Your task to perform on an android device: See recent photos Image 0: 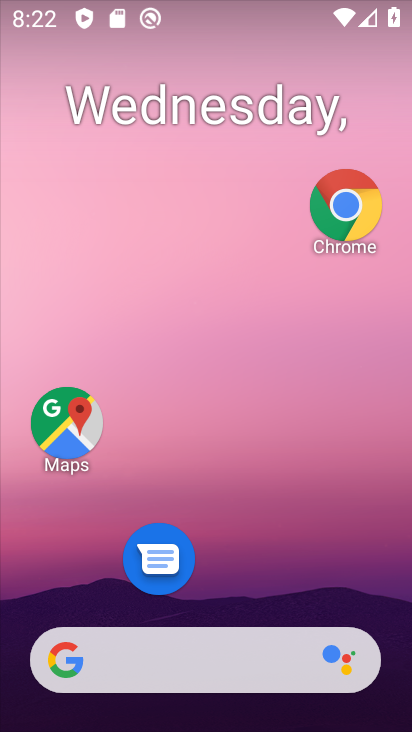
Step 0: drag from (208, 519) to (208, 298)
Your task to perform on an android device: See recent photos Image 1: 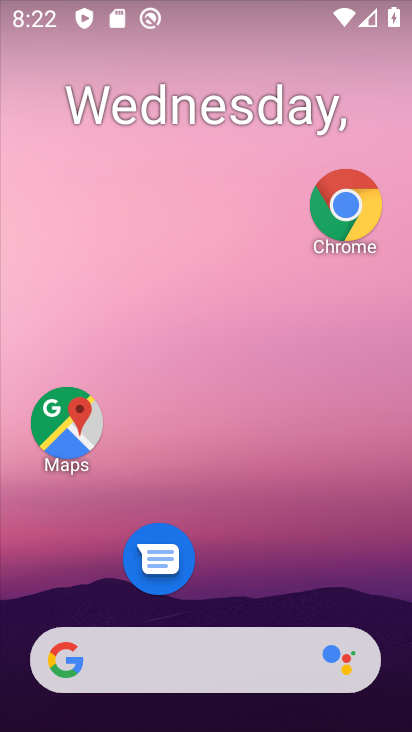
Step 1: drag from (233, 578) to (253, 29)
Your task to perform on an android device: See recent photos Image 2: 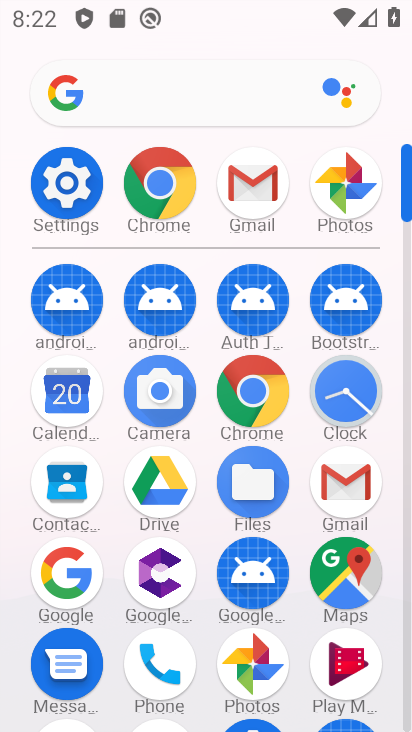
Step 2: click (262, 649)
Your task to perform on an android device: See recent photos Image 3: 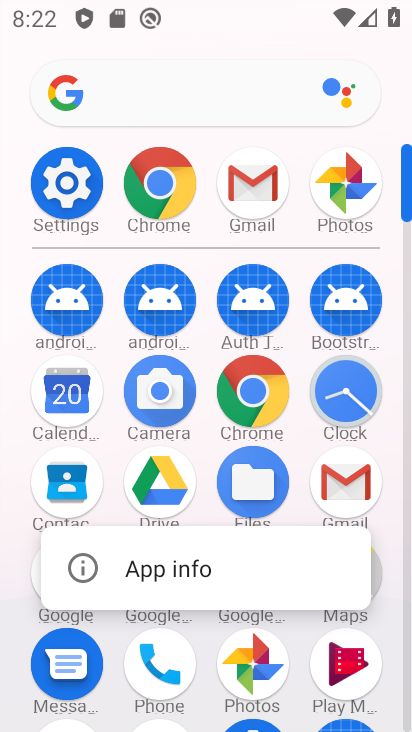
Step 3: click (181, 567)
Your task to perform on an android device: See recent photos Image 4: 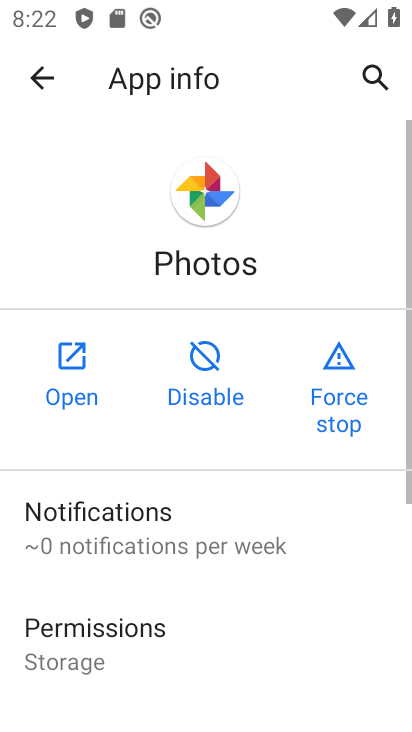
Step 4: click (73, 360)
Your task to perform on an android device: See recent photos Image 5: 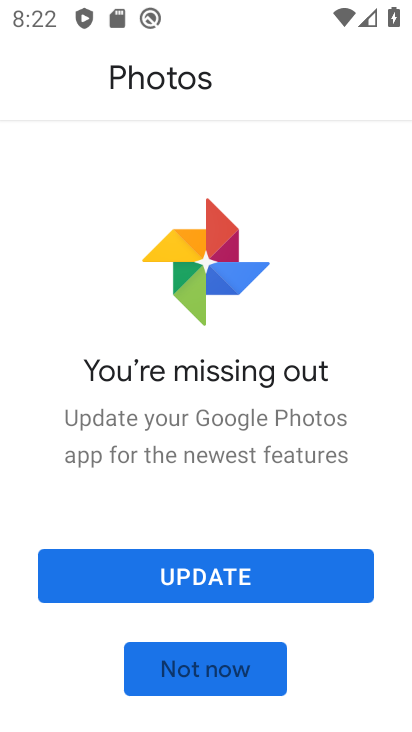
Step 5: click (202, 668)
Your task to perform on an android device: See recent photos Image 6: 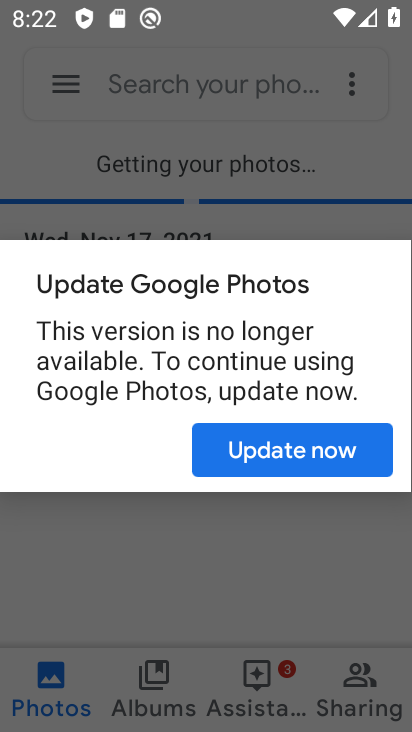
Step 6: click (246, 445)
Your task to perform on an android device: See recent photos Image 7: 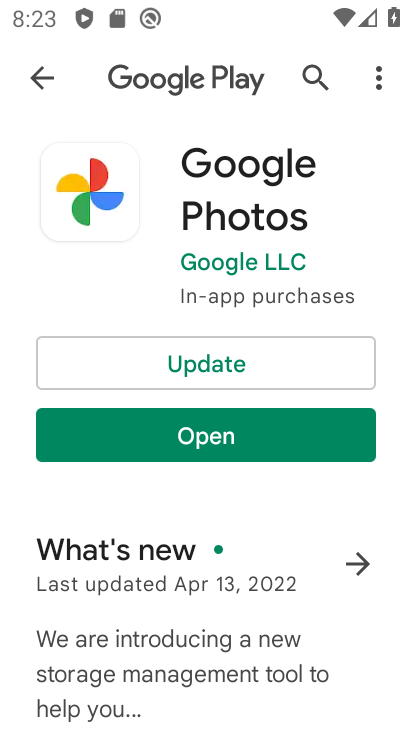
Step 7: click (232, 360)
Your task to perform on an android device: See recent photos Image 8: 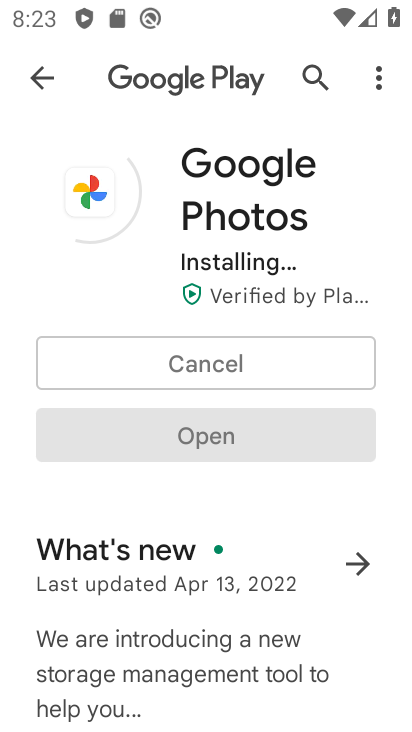
Step 8: drag from (258, 439) to (352, 170)
Your task to perform on an android device: See recent photos Image 9: 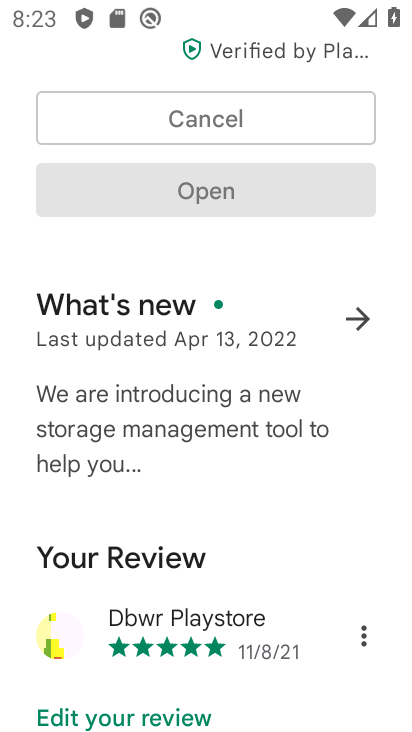
Step 9: drag from (277, 223) to (233, 418)
Your task to perform on an android device: See recent photos Image 10: 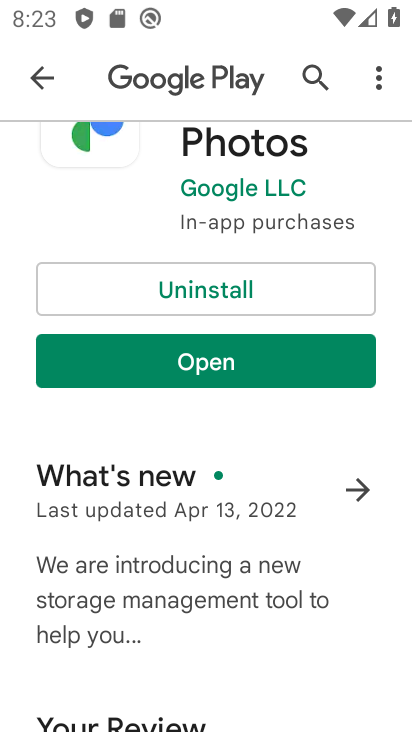
Step 10: click (219, 359)
Your task to perform on an android device: See recent photos Image 11: 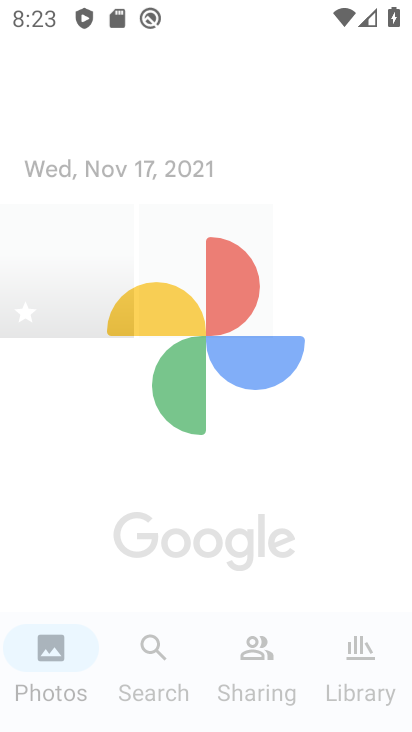
Step 11: drag from (262, 594) to (333, 361)
Your task to perform on an android device: See recent photos Image 12: 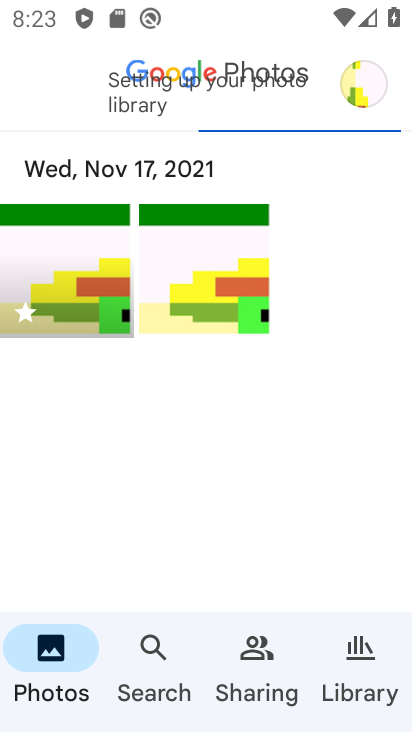
Step 12: click (216, 265)
Your task to perform on an android device: See recent photos Image 13: 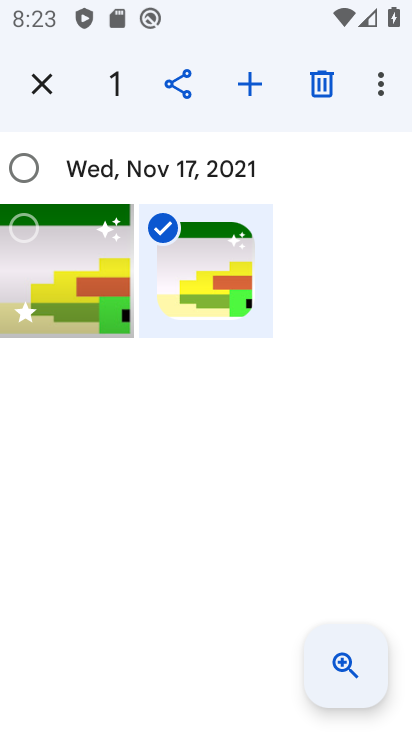
Step 13: click (172, 255)
Your task to perform on an android device: See recent photos Image 14: 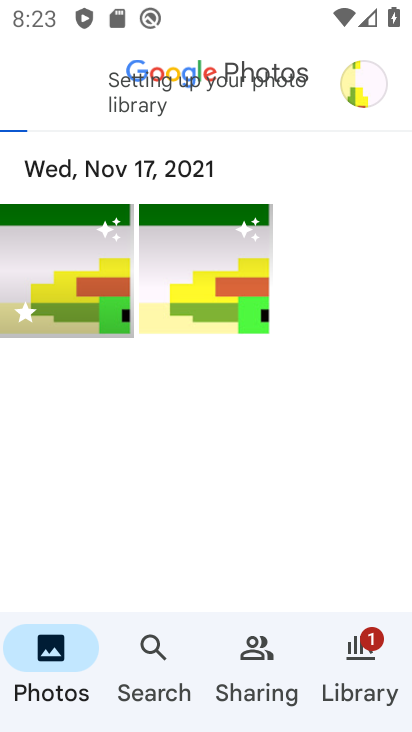
Step 14: click (162, 262)
Your task to perform on an android device: See recent photos Image 15: 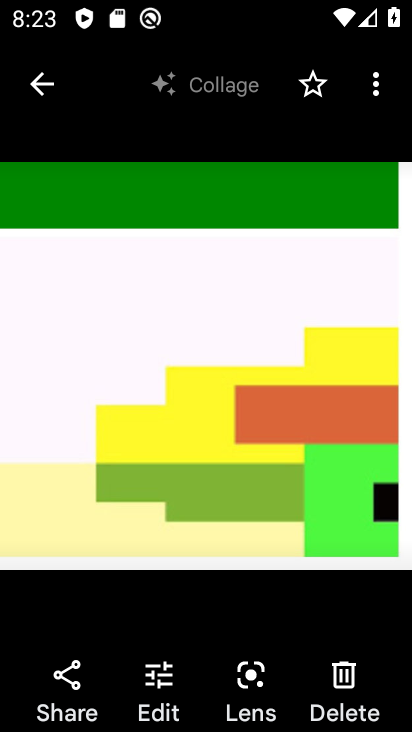
Step 15: task complete